Your task to perform on an android device: turn off airplane mode Image 0: 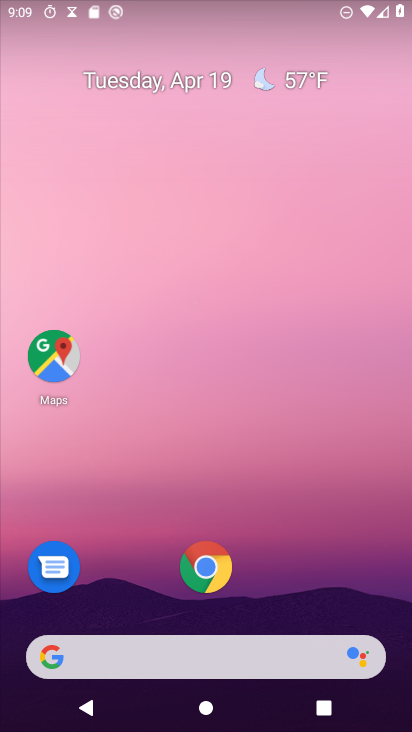
Step 0: drag from (338, 528) to (408, 37)
Your task to perform on an android device: turn off airplane mode Image 1: 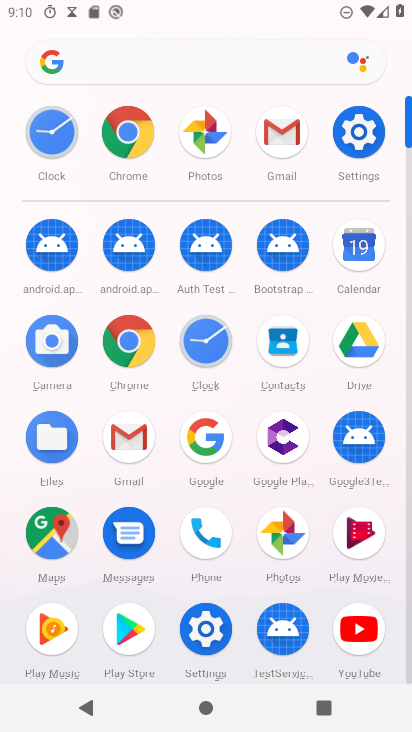
Step 1: click (362, 125)
Your task to perform on an android device: turn off airplane mode Image 2: 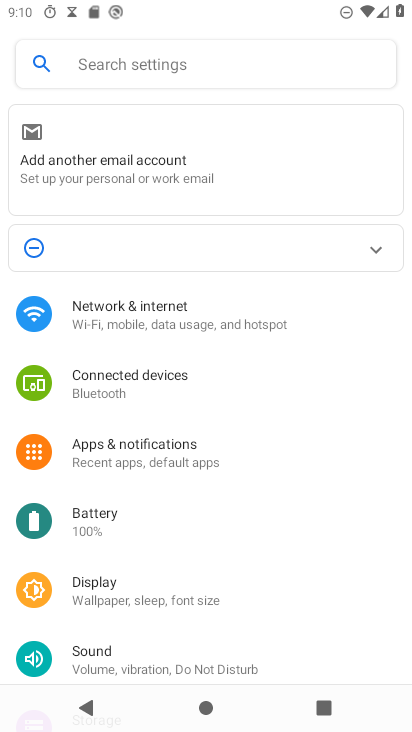
Step 2: click (81, 321)
Your task to perform on an android device: turn off airplane mode Image 3: 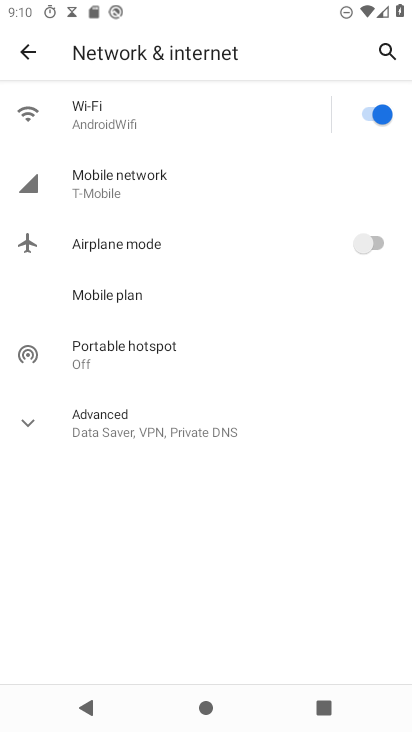
Step 3: task complete